Your task to perform on an android device: set an alarm Image 0: 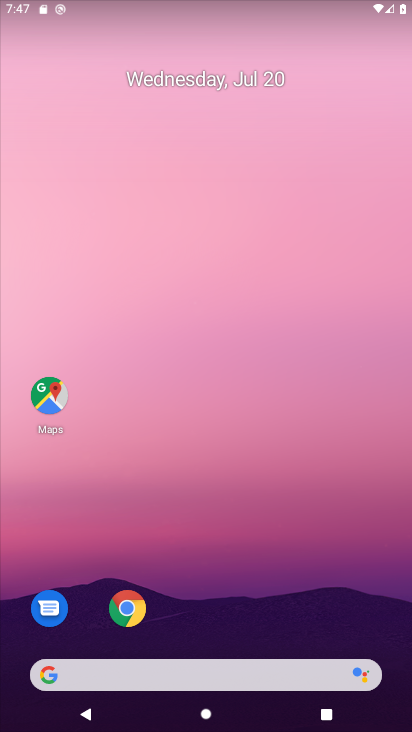
Step 0: drag from (277, 640) to (264, 284)
Your task to perform on an android device: set an alarm Image 1: 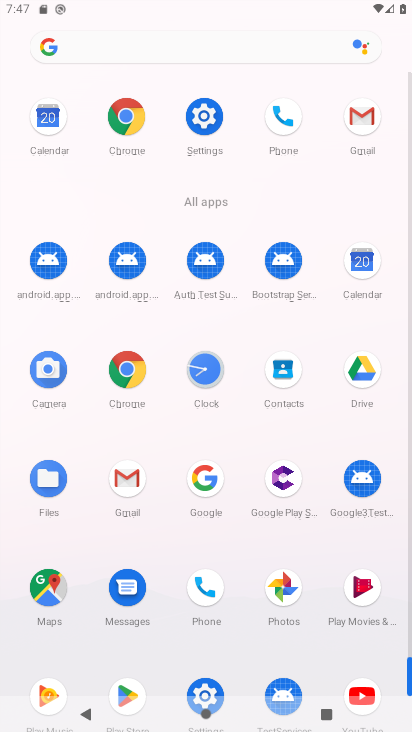
Step 1: click (203, 362)
Your task to perform on an android device: set an alarm Image 2: 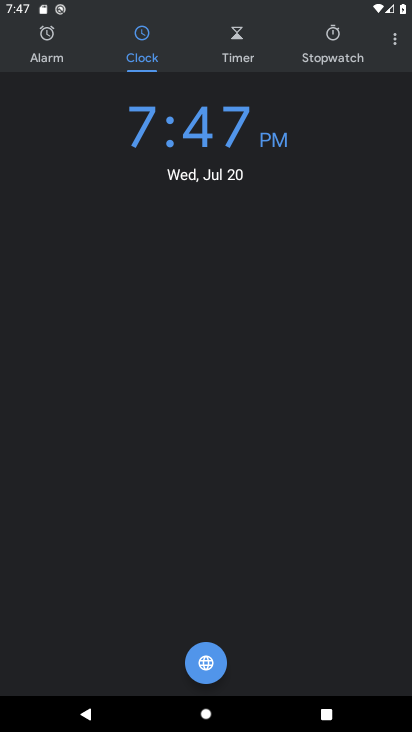
Step 2: click (56, 40)
Your task to perform on an android device: set an alarm Image 3: 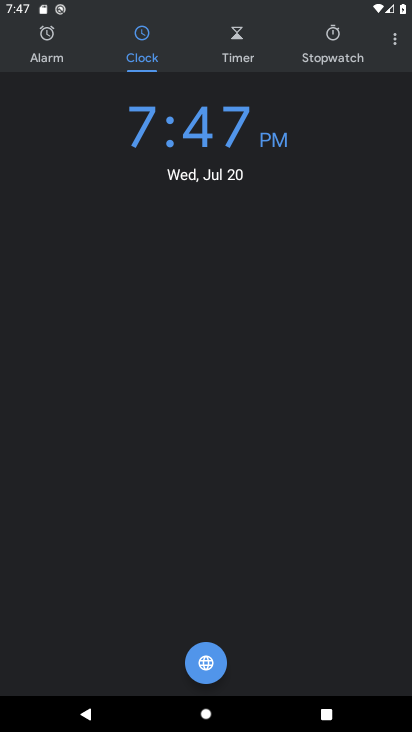
Step 3: click (36, 33)
Your task to perform on an android device: set an alarm Image 4: 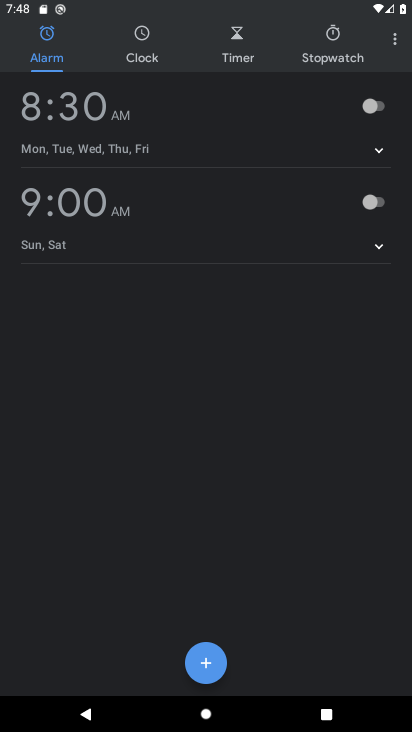
Step 4: click (382, 108)
Your task to perform on an android device: set an alarm Image 5: 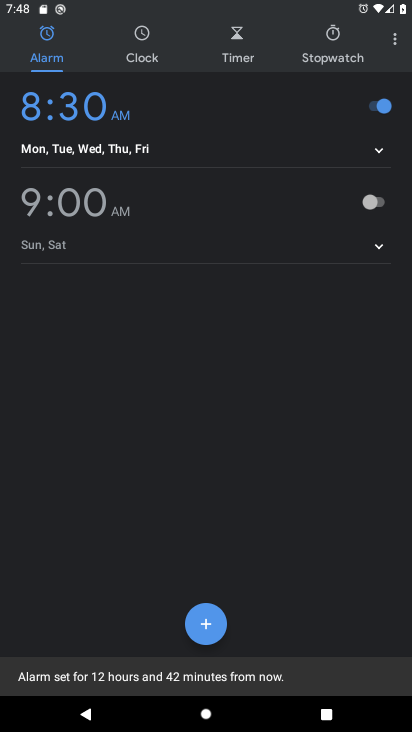
Step 5: task complete